Your task to perform on an android device: allow notifications from all sites in the chrome app Image 0: 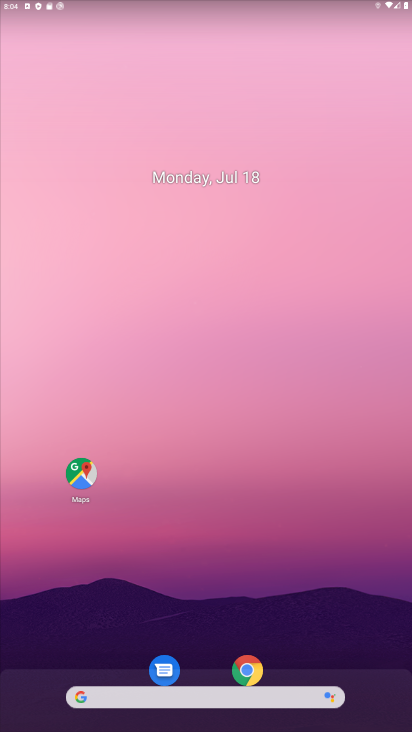
Step 0: click (245, 668)
Your task to perform on an android device: allow notifications from all sites in the chrome app Image 1: 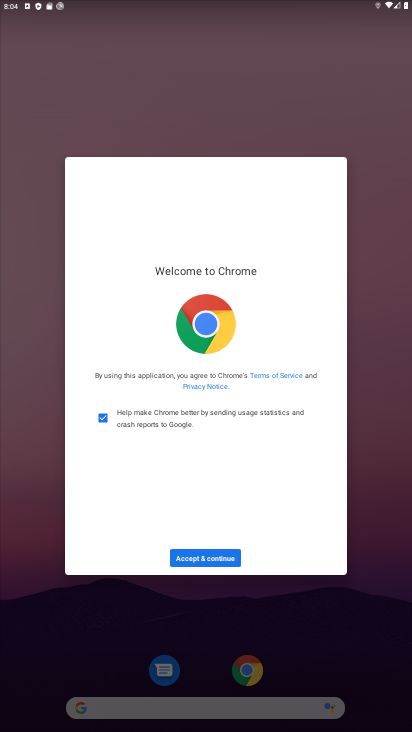
Step 1: click (201, 556)
Your task to perform on an android device: allow notifications from all sites in the chrome app Image 2: 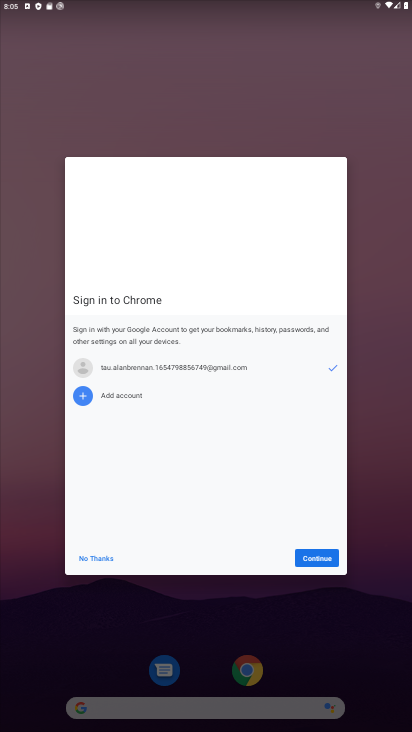
Step 2: click (311, 556)
Your task to perform on an android device: allow notifications from all sites in the chrome app Image 3: 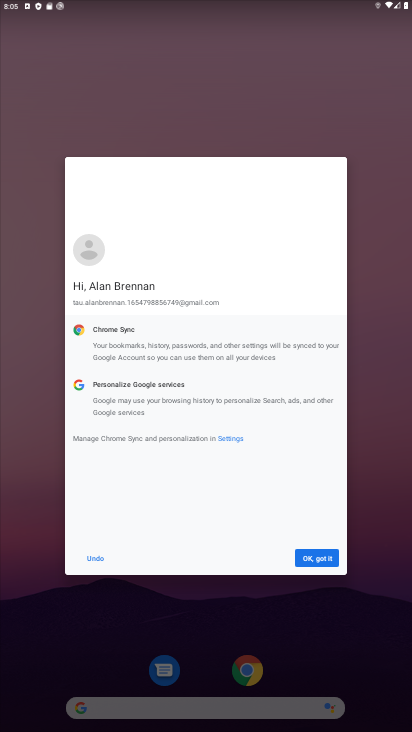
Step 3: click (311, 556)
Your task to perform on an android device: allow notifications from all sites in the chrome app Image 4: 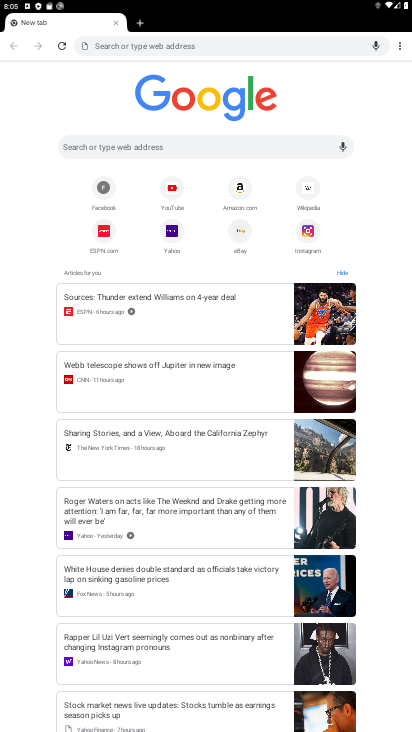
Step 4: click (401, 44)
Your task to perform on an android device: allow notifications from all sites in the chrome app Image 5: 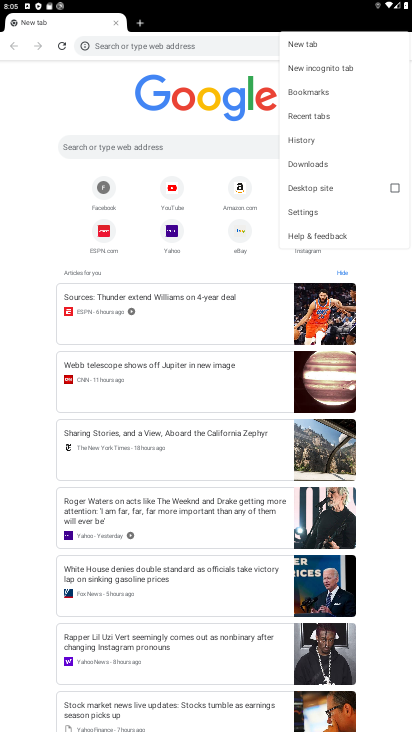
Step 5: click (299, 210)
Your task to perform on an android device: allow notifications from all sites in the chrome app Image 6: 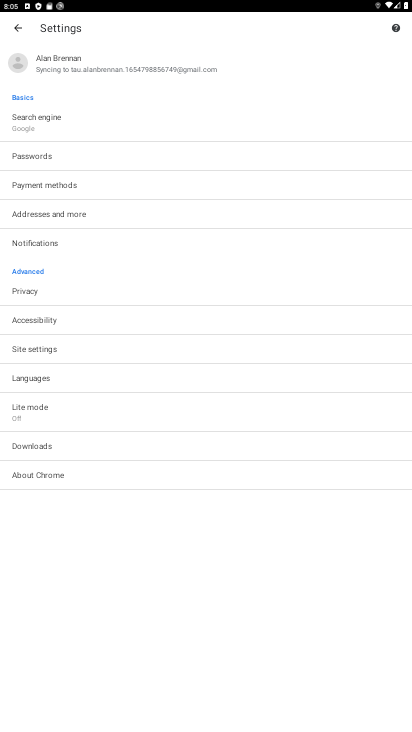
Step 6: click (53, 347)
Your task to perform on an android device: allow notifications from all sites in the chrome app Image 7: 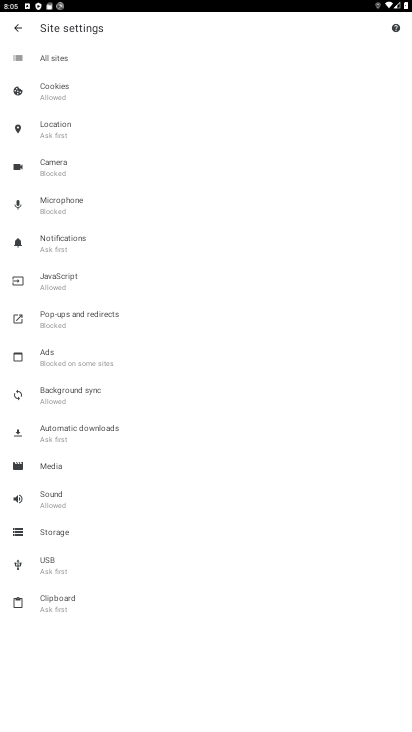
Step 7: click (51, 58)
Your task to perform on an android device: allow notifications from all sites in the chrome app Image 8: 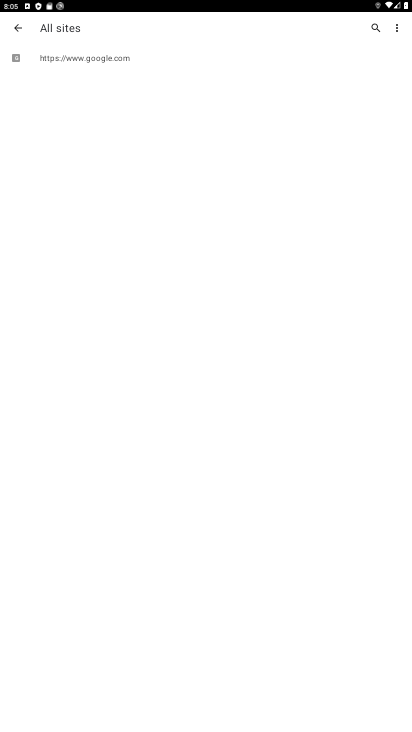
Step 8: click (100, 58)
Your task to perform on an android device: allow notifications from all sites in the chrome app Image 9: 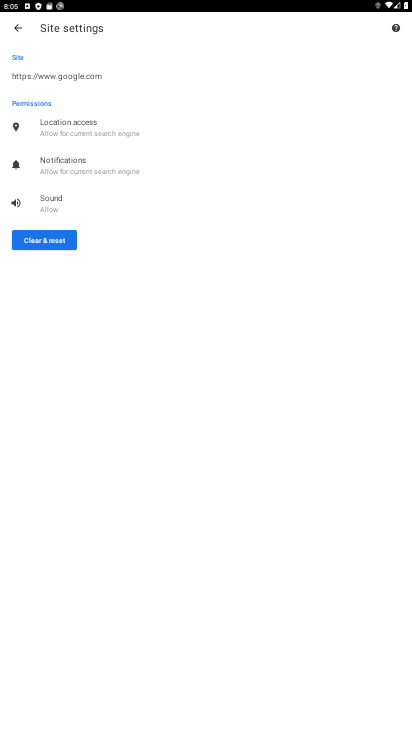
Step 9: click (85, 160)
Your task to perform on an android device: allow notifications from all sites in the chrome app Image 10: 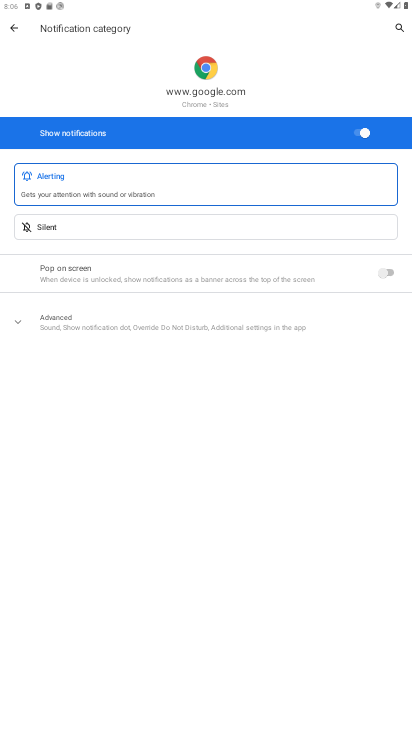
Step 10: task complete